Your task to perform on an android device: empty trash in google photos Image 0: 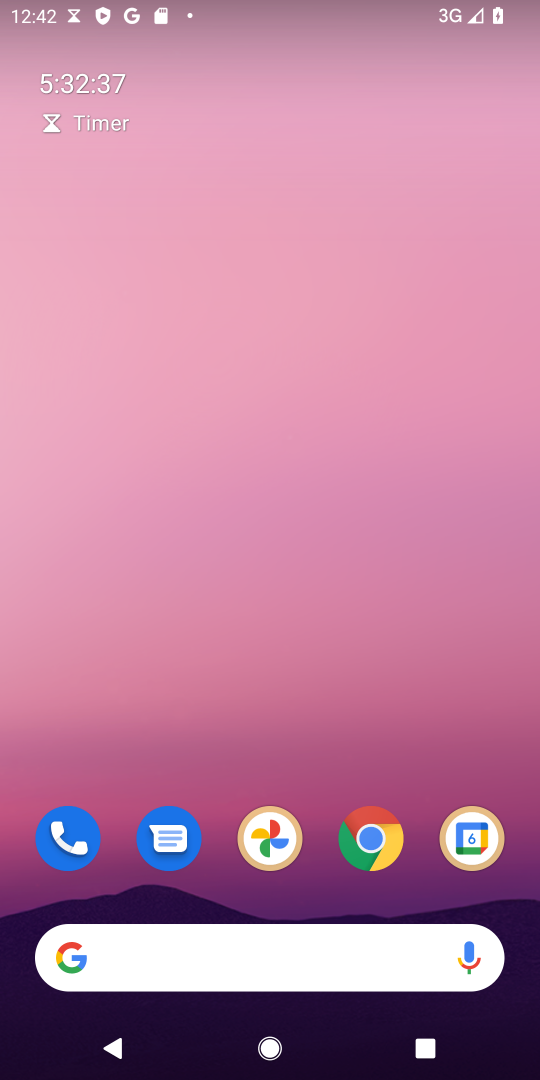
Step 0: click (280, 829)
Your task to perform on an android device: empty trash in google photos Image 1: 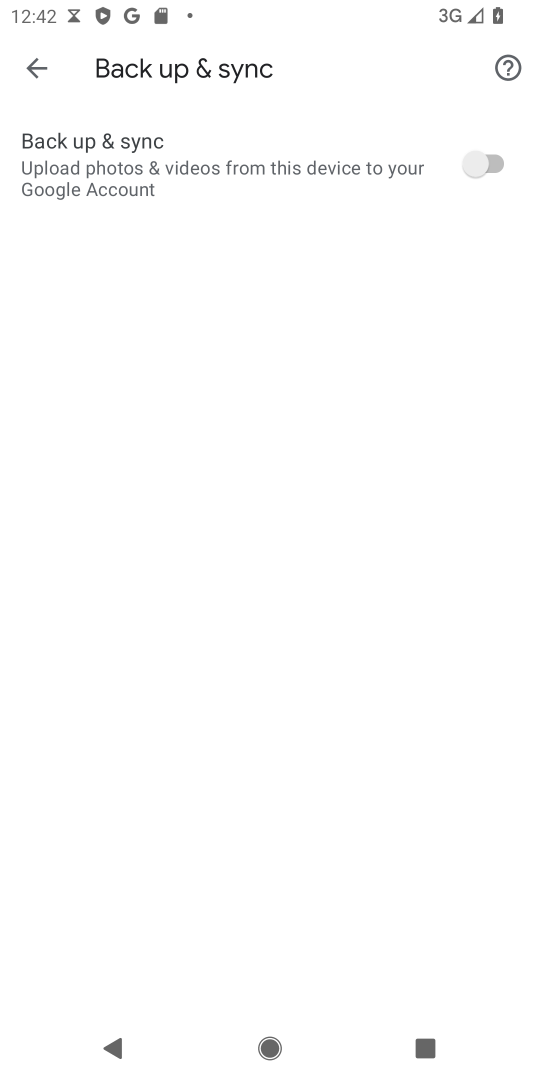
Step 1: click (35, 59)
Your task to perform on an android device: empty trash in google photos Image 2: 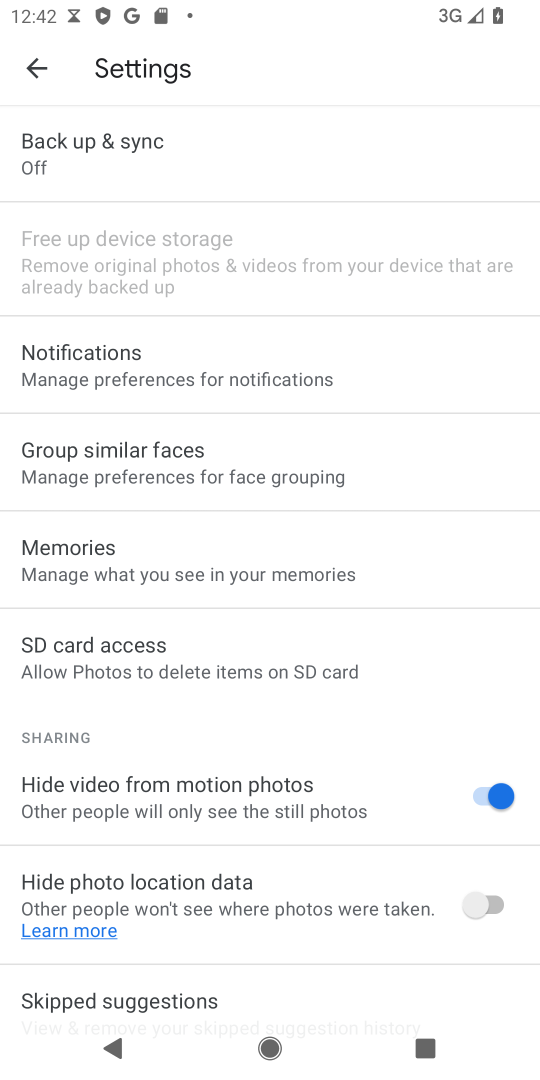
Step 2: click (35, 59)
Your task to perform on an android device: empty trash in google photos Image 3: 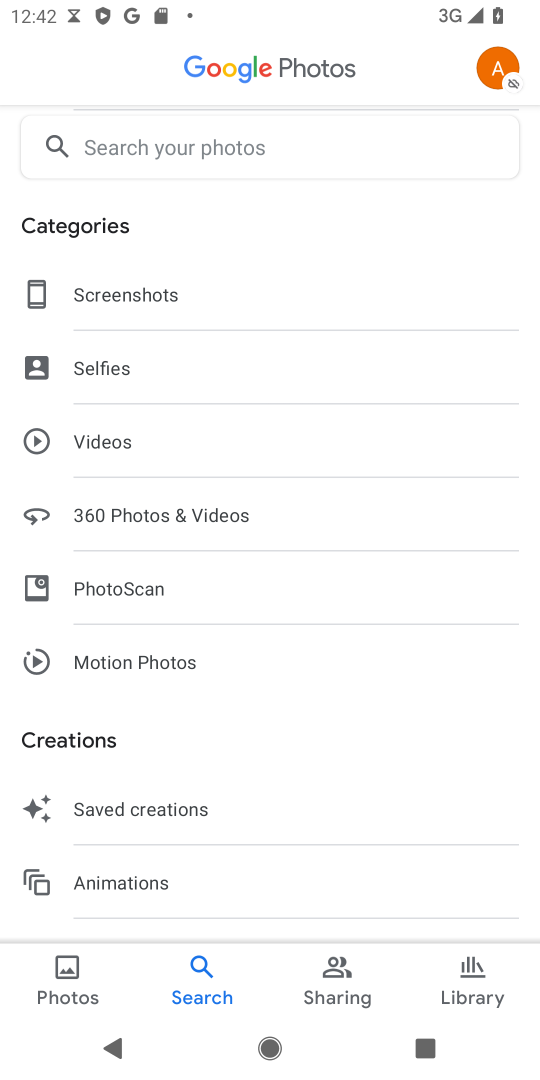
Step 3: click (446, 977)
Your task to perform on an android device: empty trash in google photos Image 4: 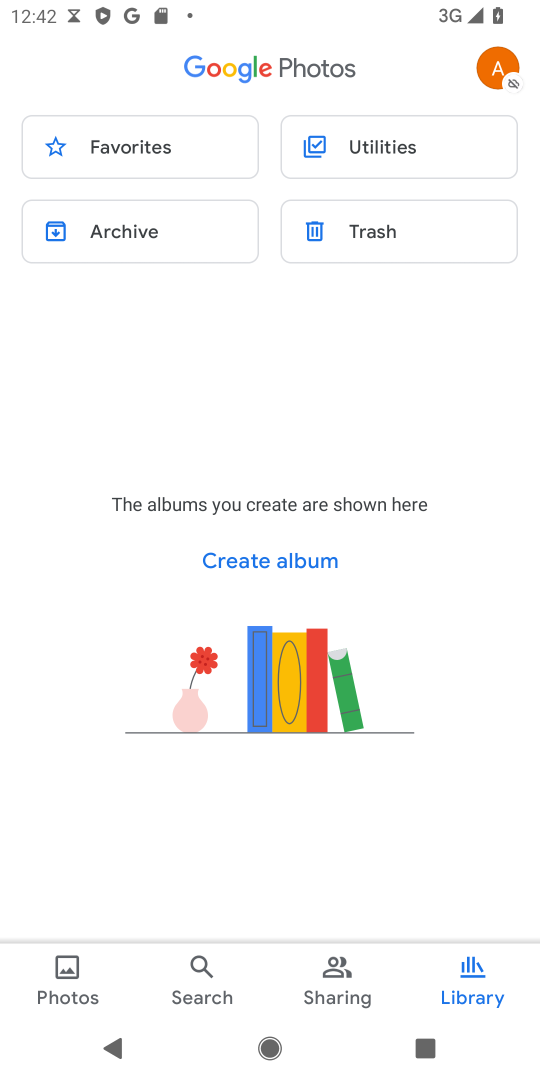
Step 4: click (342, 225)
Your task to perform on an android device: empty trash in google photos Image 5: 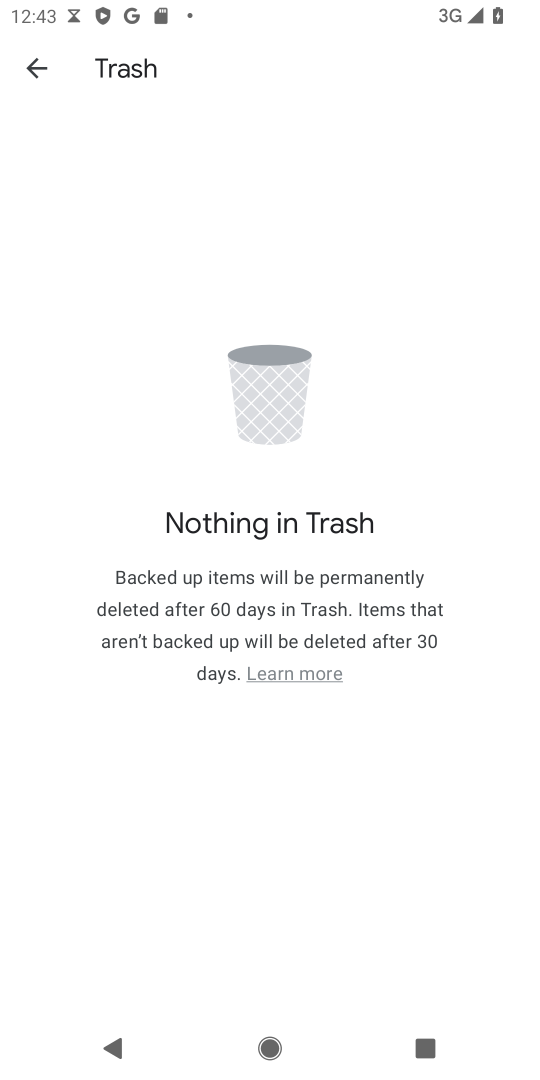
Step 5: task complete